Your task to perform on an android device: Open Amazon Image 0: 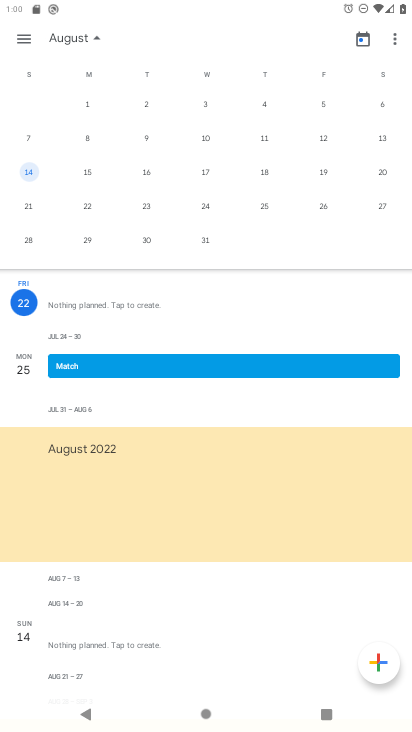
Step 0: press home button
Your task to perform on an android device: Open Amazon Image 1: 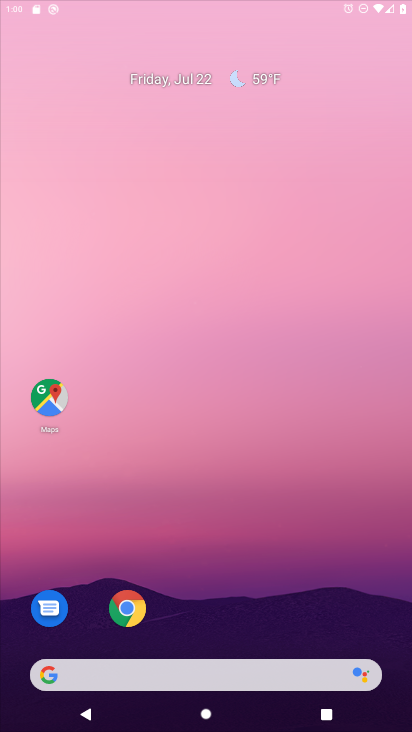
Step 1: drag from (396, 646) to (178, 8)
Your task to perform on an android device: Open Amazon Image 2: 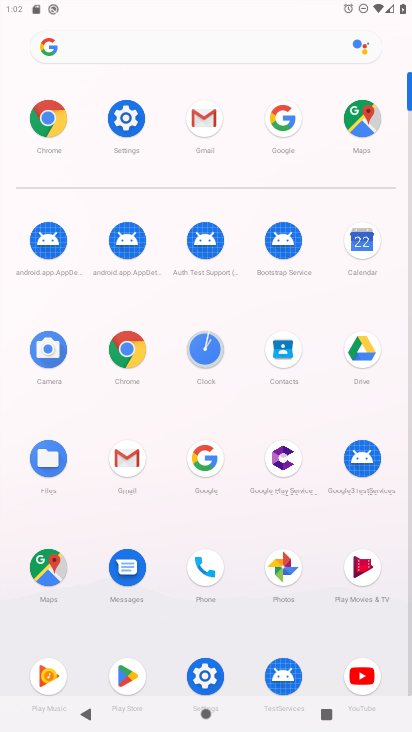
Step 2: click (202, 462)
Your task to perform on an android device: Open Amazon Image 3: 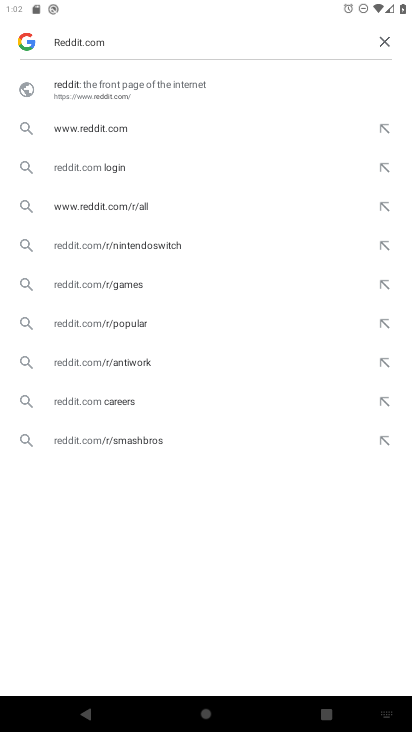
Step 3: click (387, 43)
Your task to perform on an android device: Open Amazon Image 4: 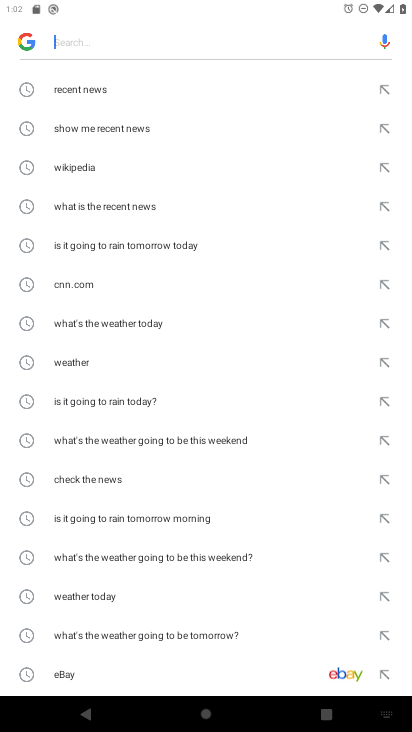
Step 4: drag from (91, 651) to (108, 360)
Your task to perform on an android device: Open Amazon Image 5: 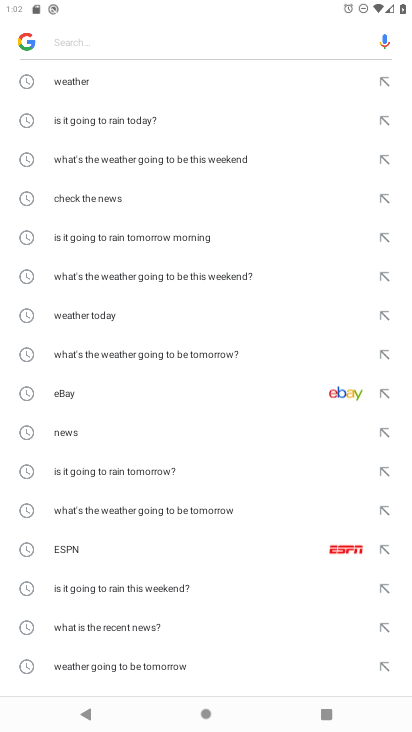
Step 5: type "Amazon"
Your task to perform on an android device: Open Amazon Image 6: 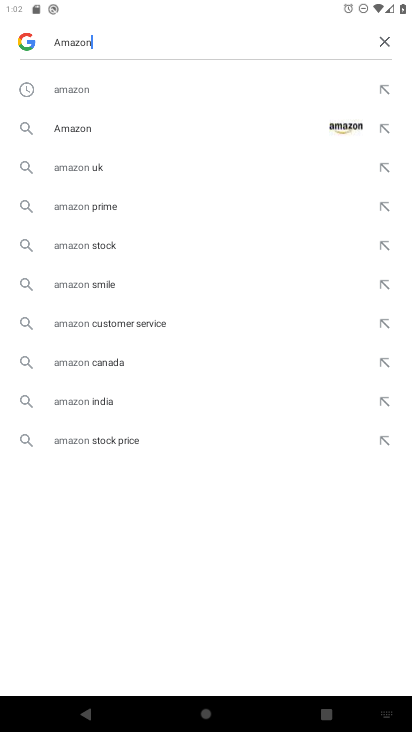
Step 6: click (59, 95)
Your task to perform on an android device: Open Amazon Image 7: 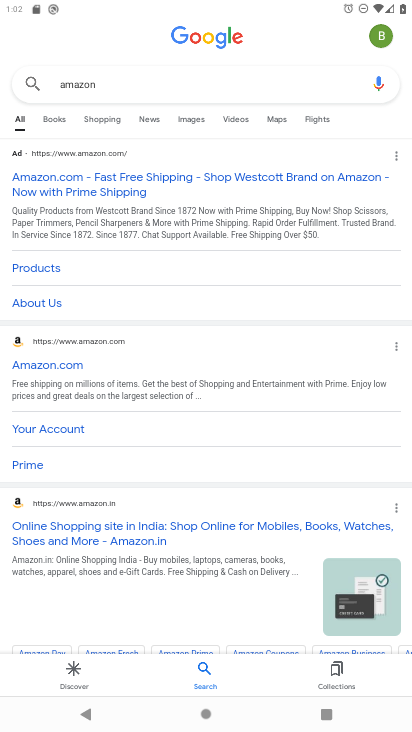
Step 7: task complete